Your task to perform on an android device: turn on sleep mode Image 0: 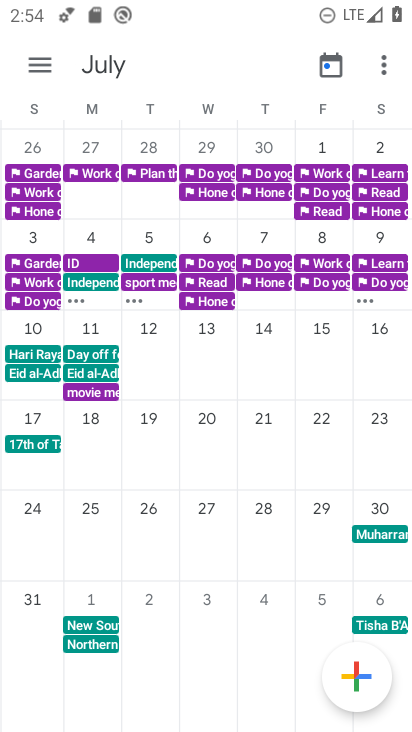
Step 0: press home button
Your task to perform on an android device: turn on sleep mode Image 1: 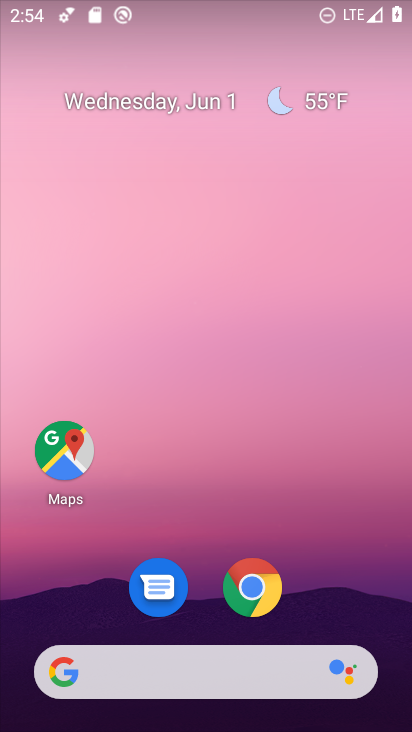
Step 1: drag from (215, 661) to (237, 88)
Your task to perform on an android device: turn on sleep mode Image 2: 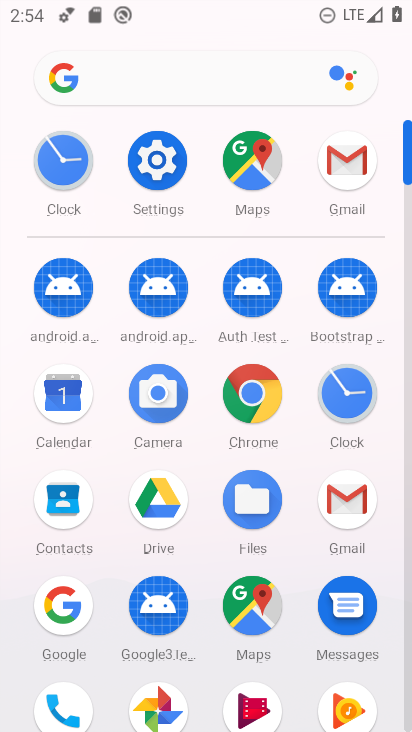
Step 2: click (135, 147)
Your task to perform on an android device: turn on sleep mode Image 3: 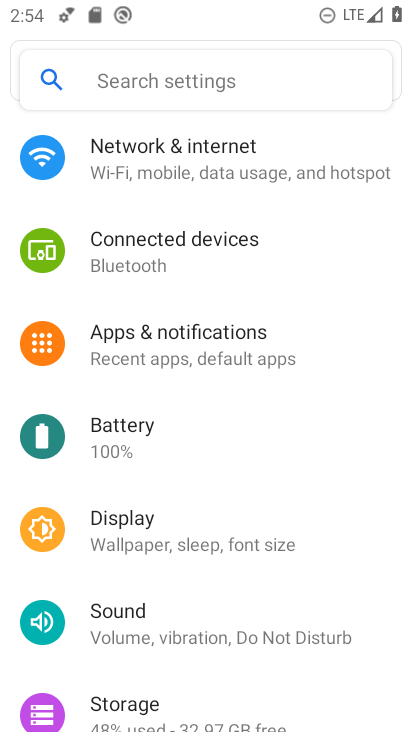
Step 3: click (113, 520)
Your task to perform on an android device: turn on sleep mode Image 4: 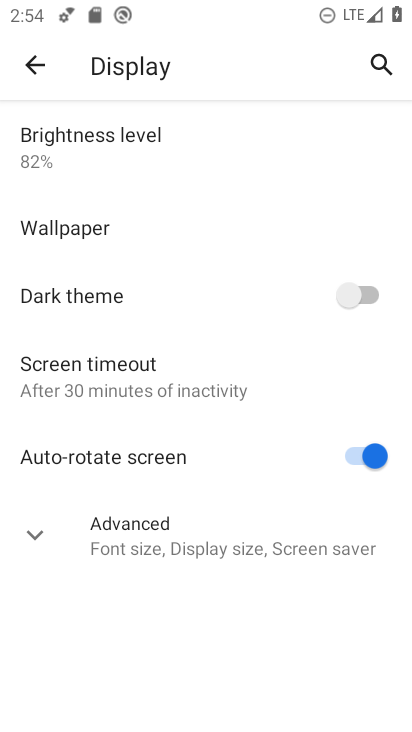
Step 4: task complete